Your task to perform on an android device: Open my contact list Image 0: 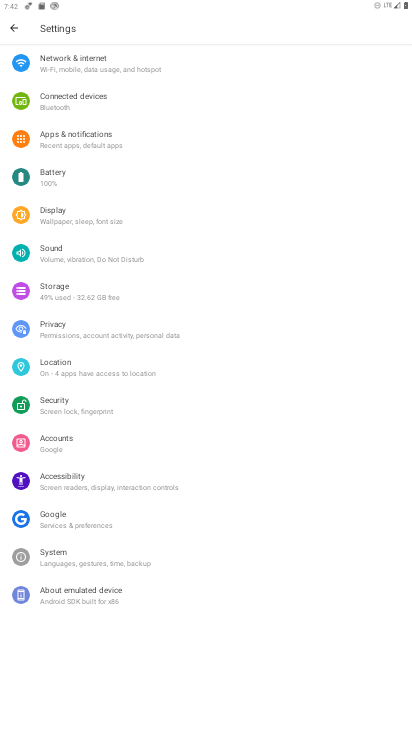
Step 0: press home button
Your task to perform on an android device: Open my contact list Image 1: 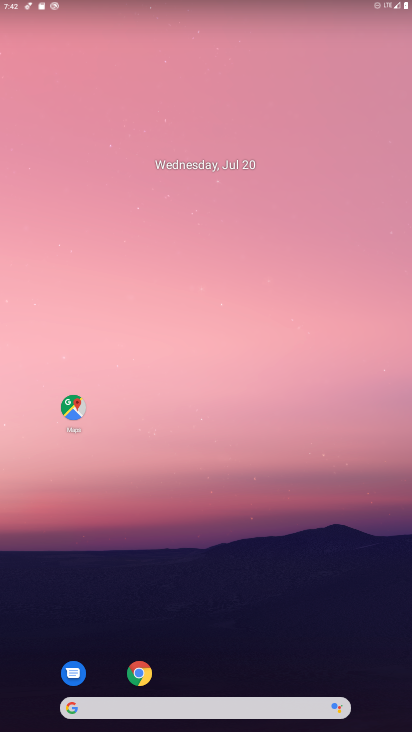
Step 1: drag from (265, 526) to (275, 0)
Your task to perform on an android device: Open my contact list Image 2: 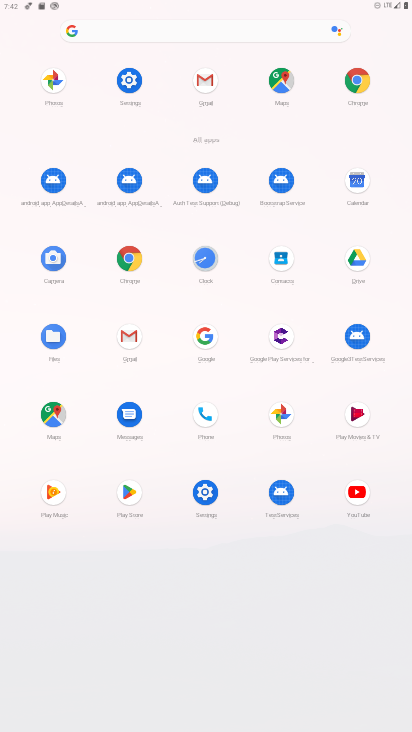
Step 2: click (207, 418)
Your task to perform on an android device: Open my contact list Image 3: 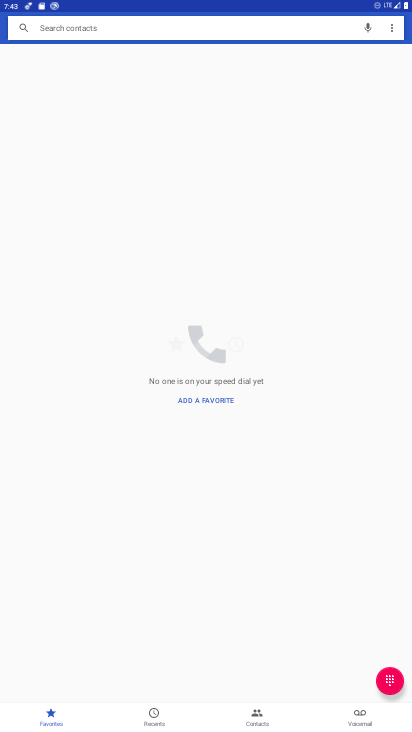
Step 3: click (254, 723)
Your task to perform on an android device: Open my contact list Image 4: 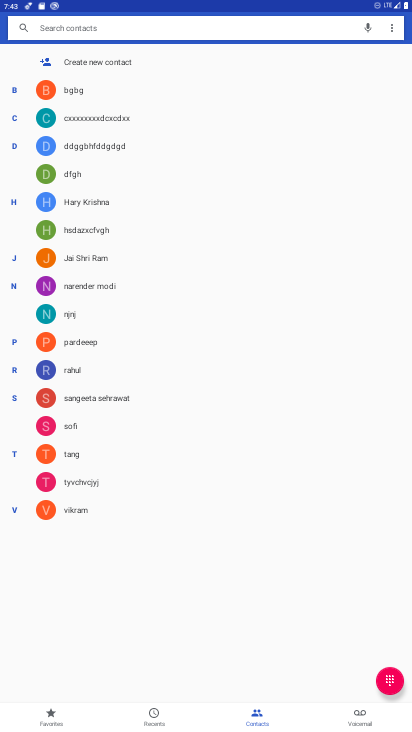
Step 4: task complete